Your task to perform on an android device: Open Google Chrome and open the bookmarks view Image 0: 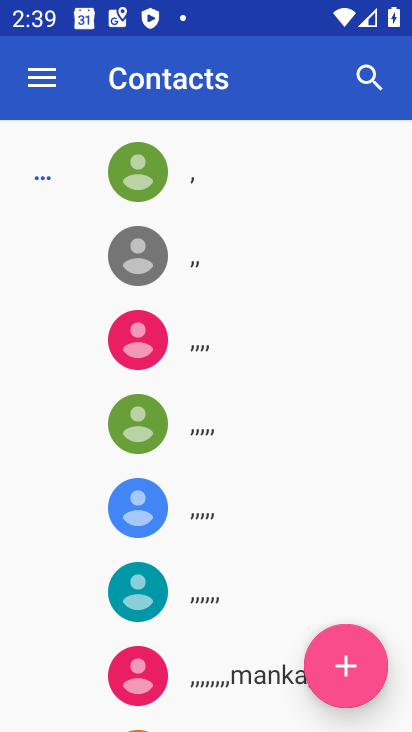
Step 0: press home button
Your task to perform on an android device: Open Google Chrome and open the bookmarks view Image 1: 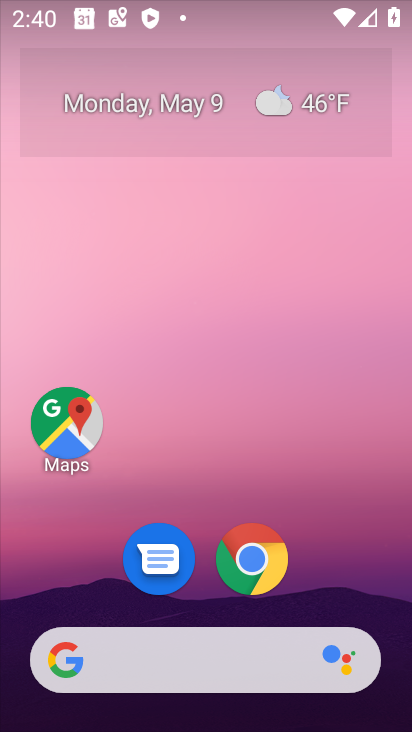
Step 1: click (262, 569)
Your task to perform on an android device: Open Google Chrome and open the bookmarks view Image 2: 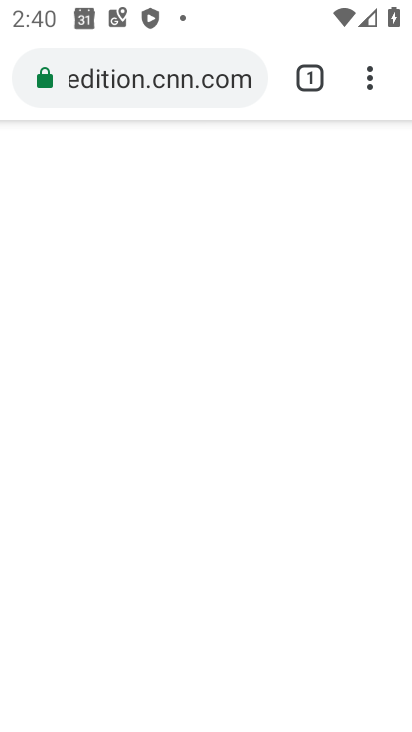
Step 2: click (353, 70)
Your task to perform on an android device: Open Google Chrome and open the bookmarks view Image 3: 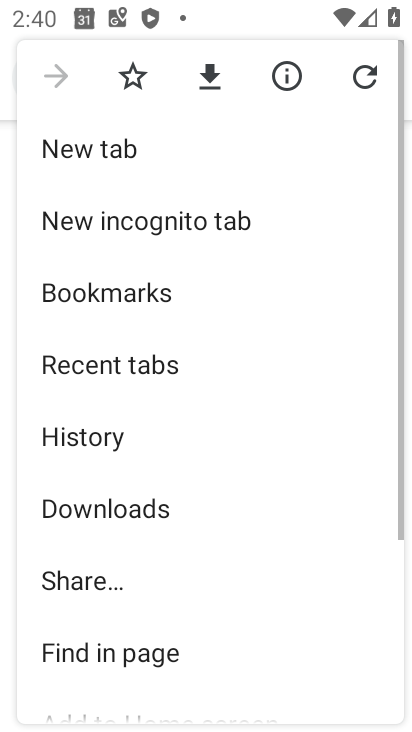
Step 3: click (216, 289)
Your task to perform on an android device: Open Google Chrome and open the bookmarks view Image 4: 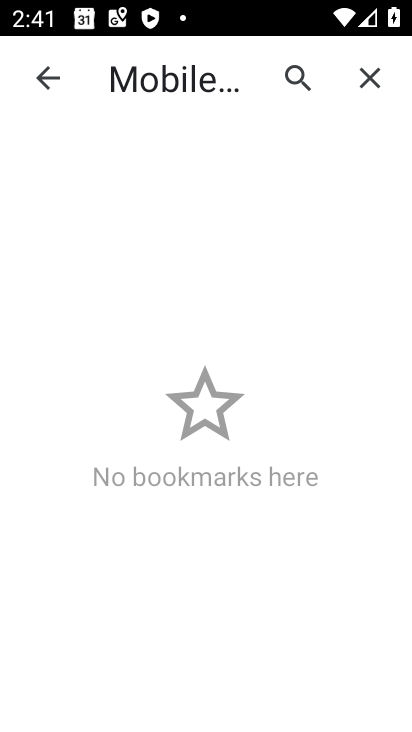
Step 4: task complete